Your task to perform on an android device: toggle notification dots Image 0: 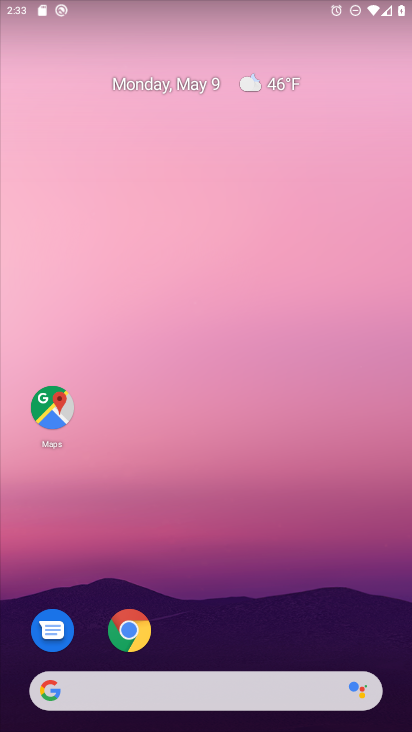
Step 0: drag from (282, 709) to (225, 340)
Your task to perform on an android device: toggle notification dots Image 1: 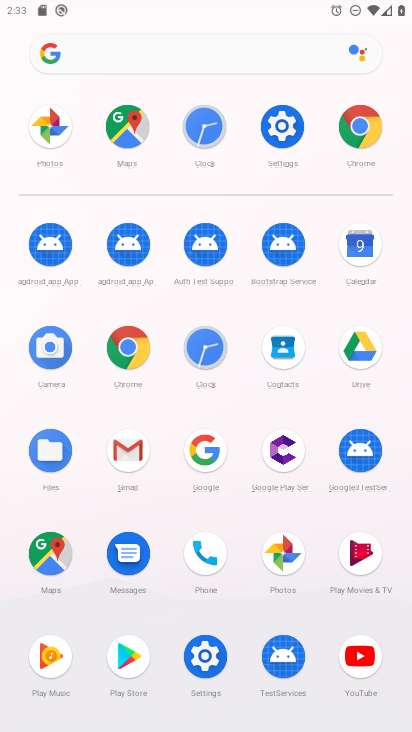
Step 1: click (274, 131)
Your task to perform on an android device: toggle notification dots Image 2: 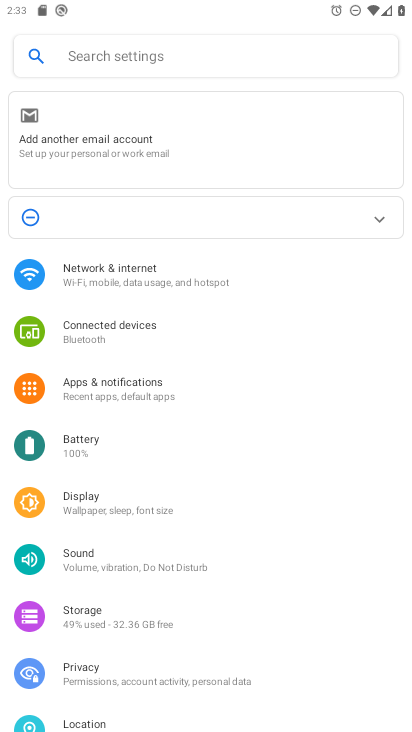
Step 2: click (189, 63)
Your task to perform on an android device: toggle notification dots Image 3: 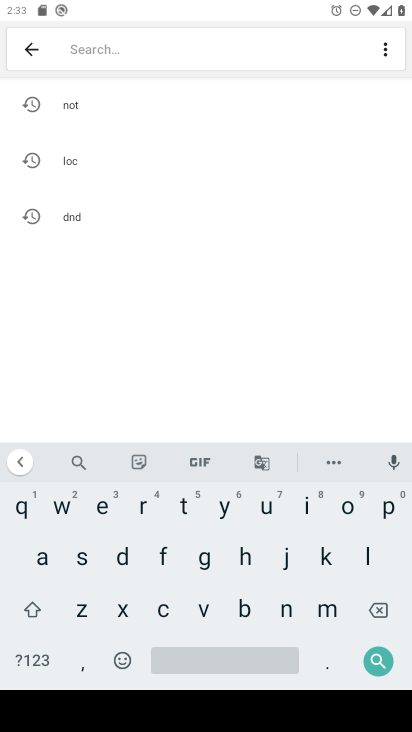
Step 3: click (122, 570)
Your task to perform on an android device: toggle notification dots Image 4: 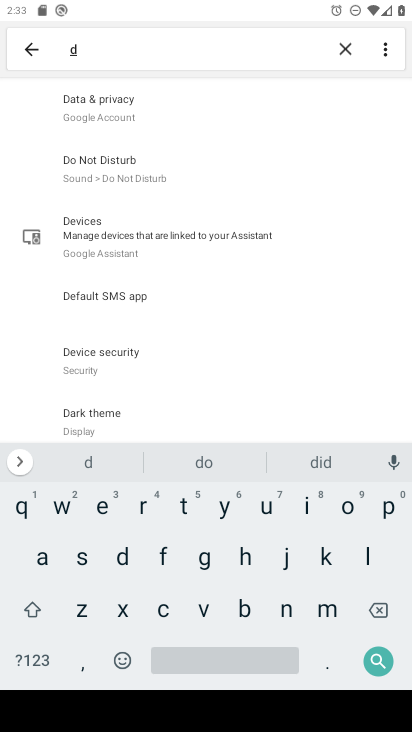
Step 4: click (343, 511)
Your task to perform on an android device: toggle notification dots Image 5: 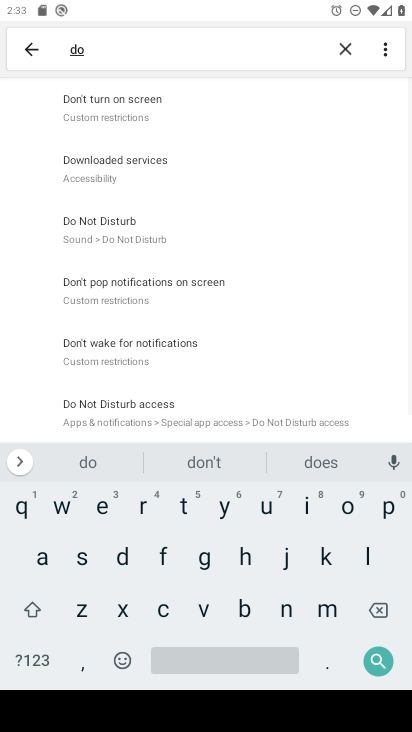
Step 5: click (183, 509)
Your task to perform on an android device: toggle notification dots Image 6: 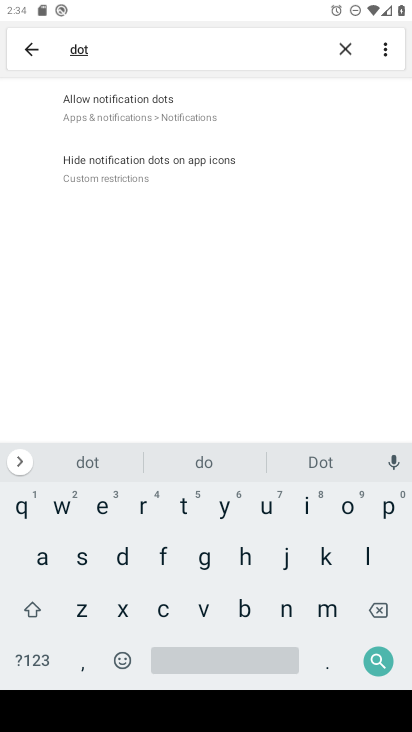
Step 6: click (117, 104)
Your task to perform on an android device: toggle notification dots Image 7: 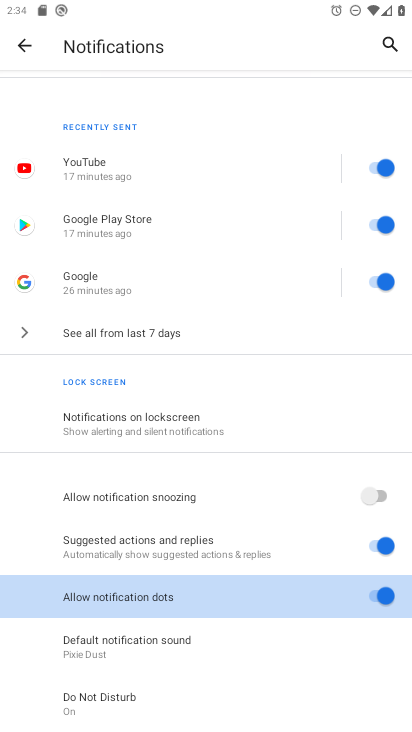
Step 7: click (148, 595)
Your task to perform on an android device: toggle notification dots Image 8: 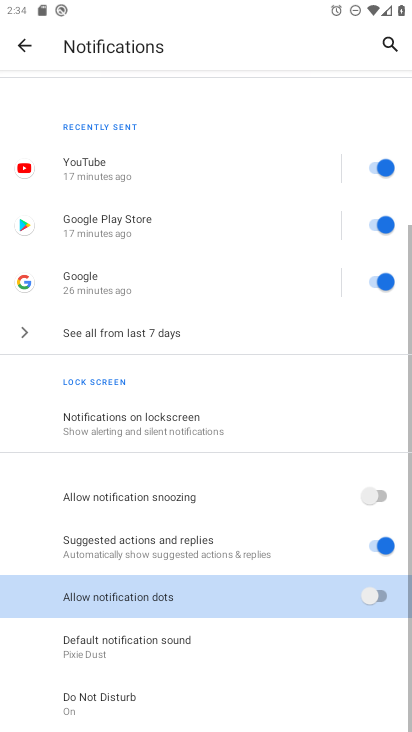
Step 8: click (148, 595)
Your task to perform on an android device: toggle notification dots Image 9: 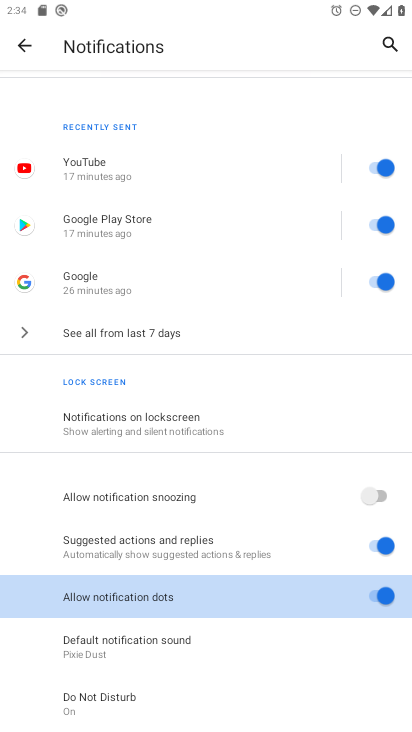
Step 9: task complete